Your task to perform on an android device: Open location settings Image 0: 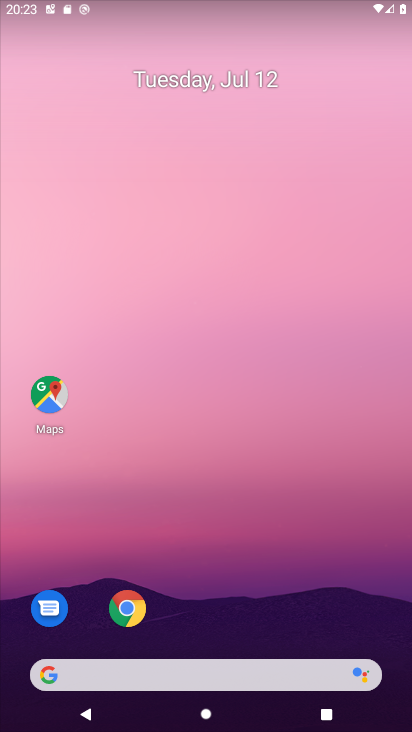
Step 0: drag from (187, 658) to (240, 288)
Your task to perform on an android device: Open location settings Image 1: 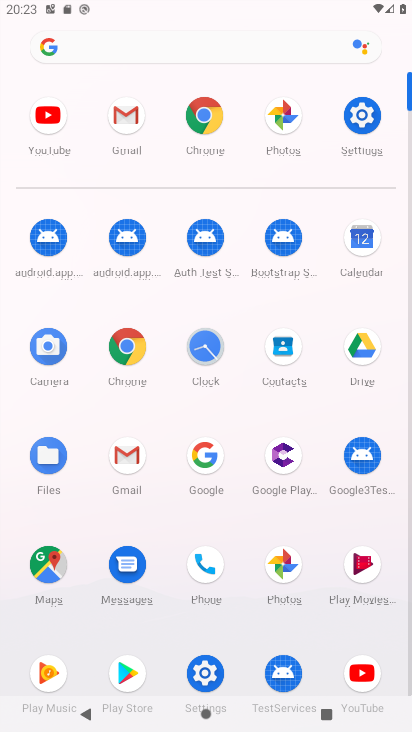
Step 1: click (367, 114)
Your task to perform on an android device: Open location settings Image 2: 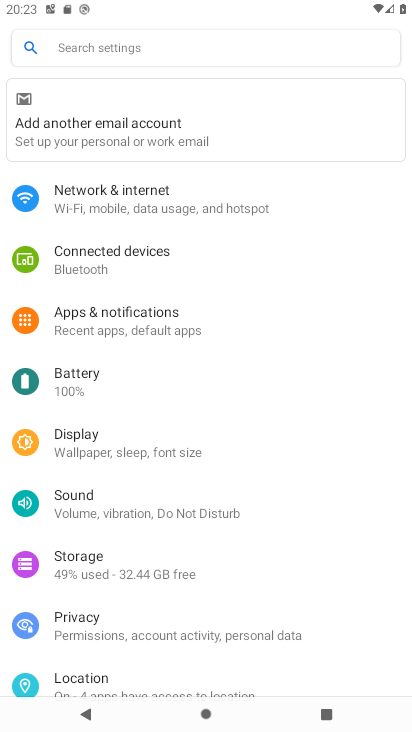
Step 2: click (86, 683)
Your task to perform on an android device: Open location settings Image 3: 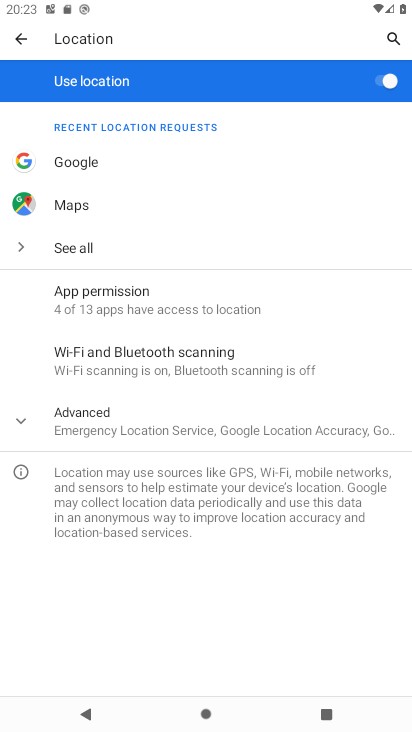
Step 3: task complete